Your task to perform on an android device: Open Youtube and go to the subscriptions tab Image 0: 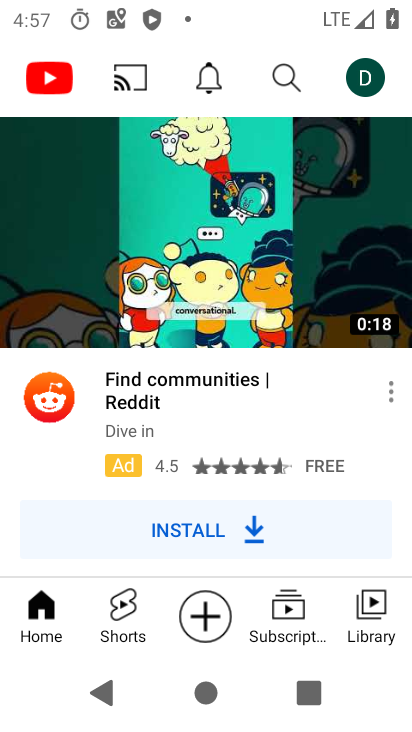
Step 0: press home button
Your task to perform on an android device: Open Youtube and go to the subscriptions tab Image 1: 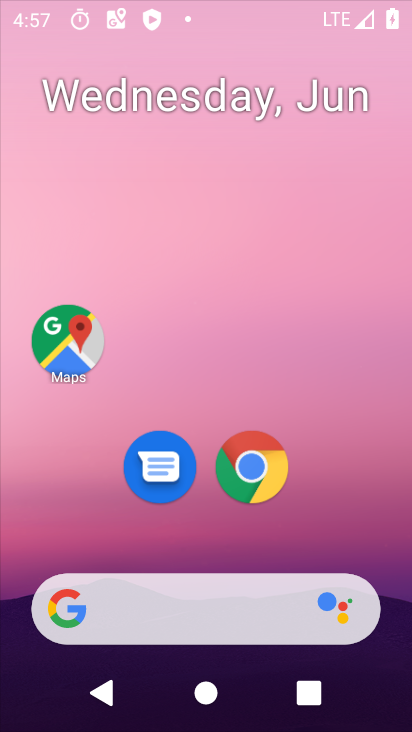
Step 1: drag from (316, 238) to (223, 13)
Your task to perform on an android device: Open Youtube and go to the subscriptions tab Image 2: 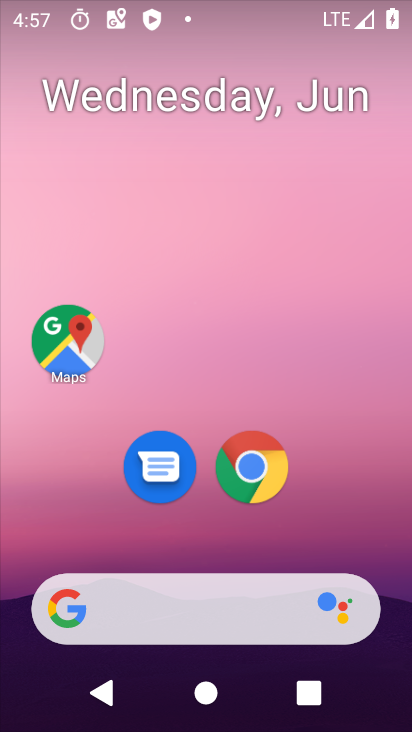
Step 2: drag from (323, 431) to (253, 37)
Your task to perform on an android device: Open Youtube and go to the subscriptions tab Image 3: 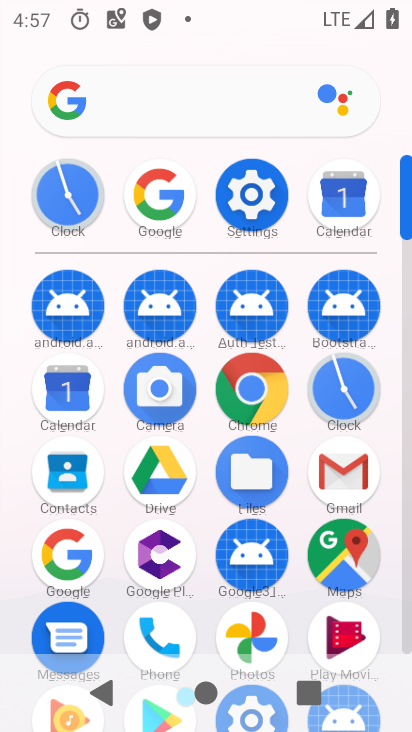
Step 3: drag from (211, 617) to (223, 122)
Your task to perform on an android device: Open Youtube and go to the subscriptions tab Image 4: 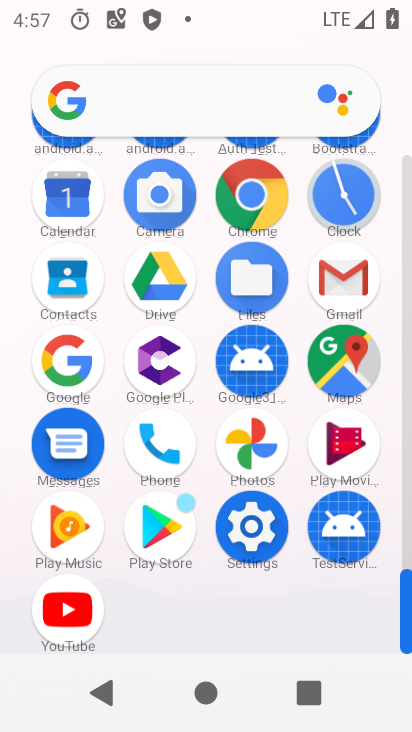
Step 4: click (68, 634)
Your task to perform on an android device: Open Youtube and go to the subscriptions tab Image 5: 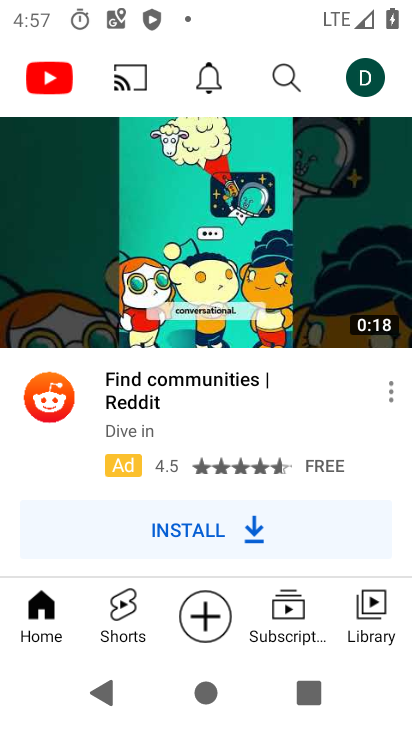
Step 5: click (276, 615)
Your task to perform on an android device: Open Youtube and go to the subscriptions tab Image 6: 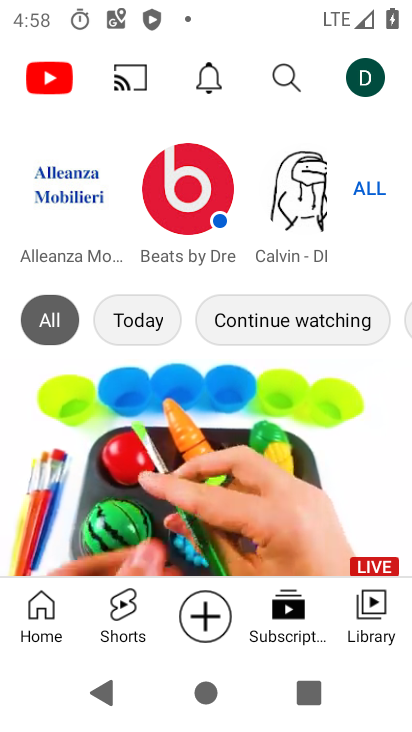
Step 6: task complete